Your task to perform on an android device: Open the map Image 0: 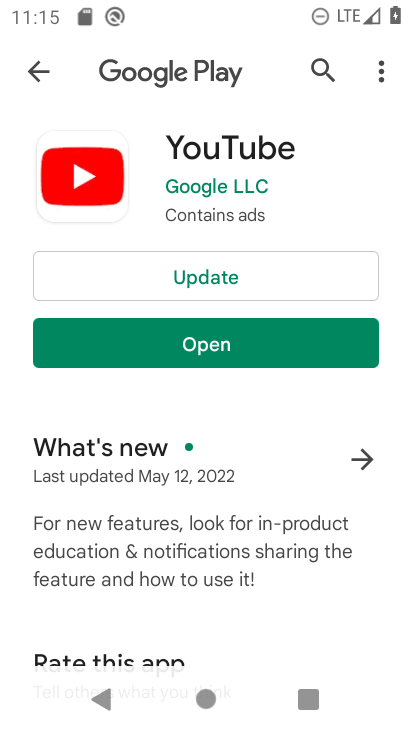
Step 0: press home button
Your task to perform on an android device: Open the map Image 1: 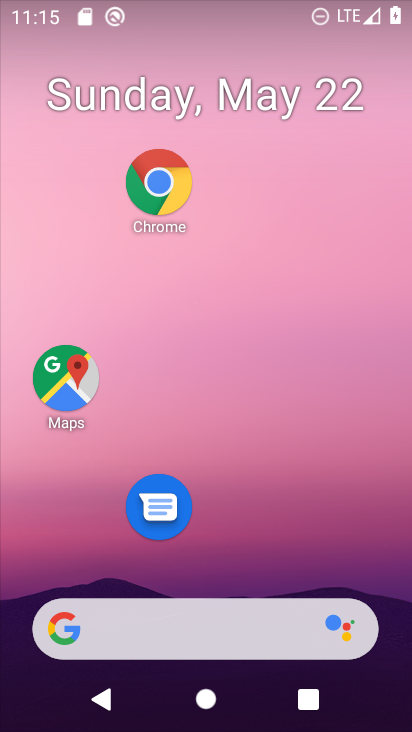
Step 1: click (56, 389)
Your task to perform on an android device: Open the map Image 2: 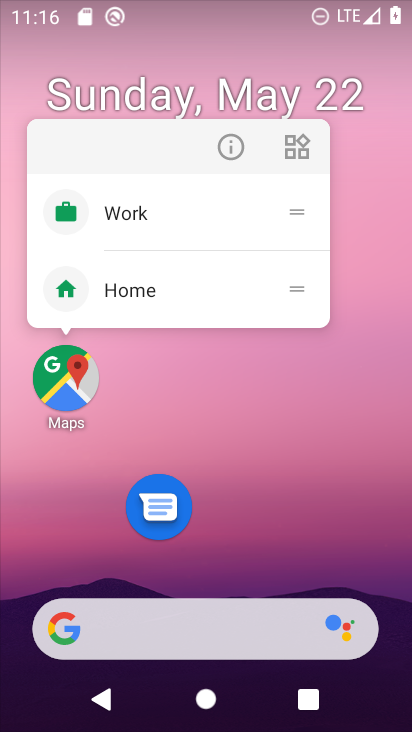
Step 2: click (37, 378)
Your task to perform on an android device: Open the map Image 3: 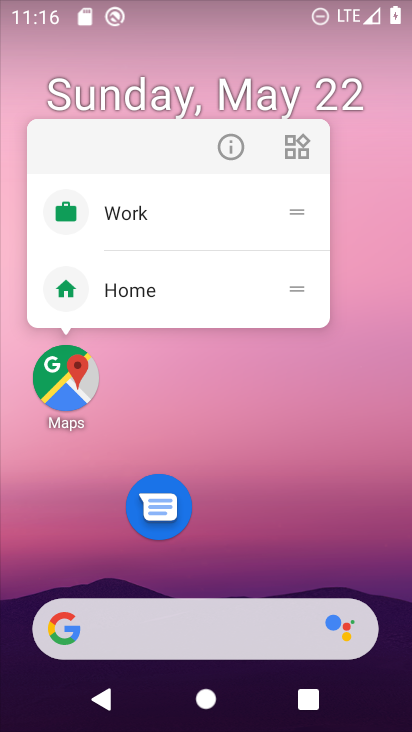
Step 3: click (37, 378)
Your task to perform on an android device: Open the map Image 4: 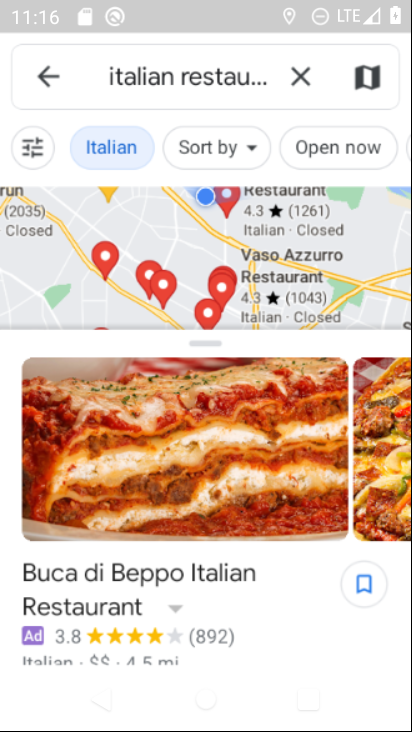
Step 4: click (299, 72)
Your task to perform on an android device: Open the map Image 5: 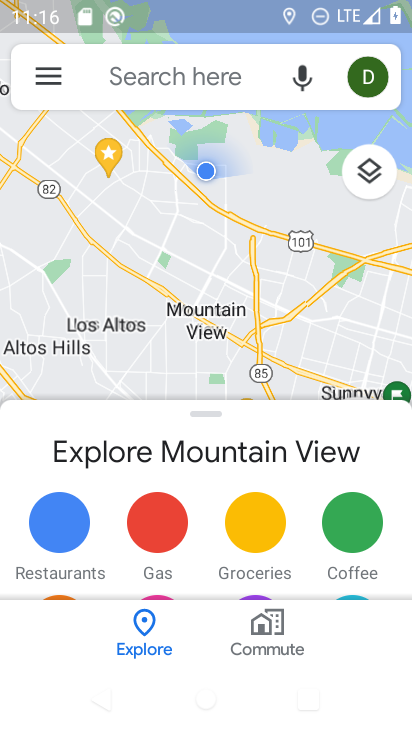
Step 5: task complete